Your task to perform on an android device: change your default location settings in chrome Image 0: 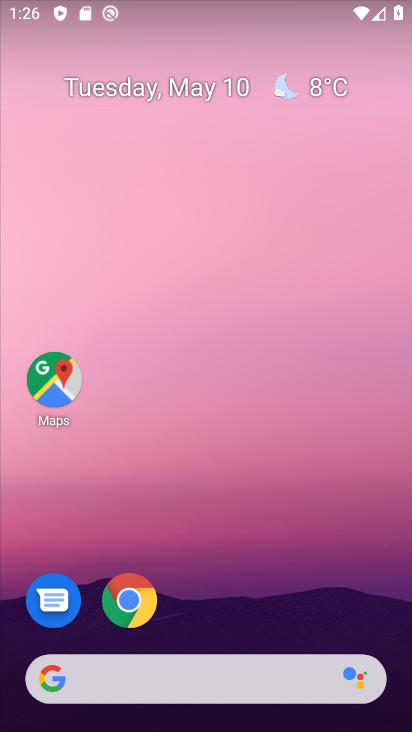
Step 0: click (131, 596)
Your task to perform on an android device: change your default location settings in chrome Image 1: 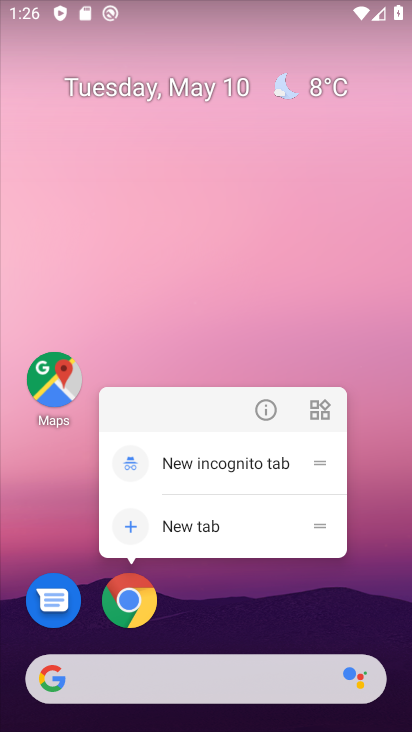
Step 1: click (165, 619)
Your task to perform on an android device: change your default location settings in chrome Image 2: 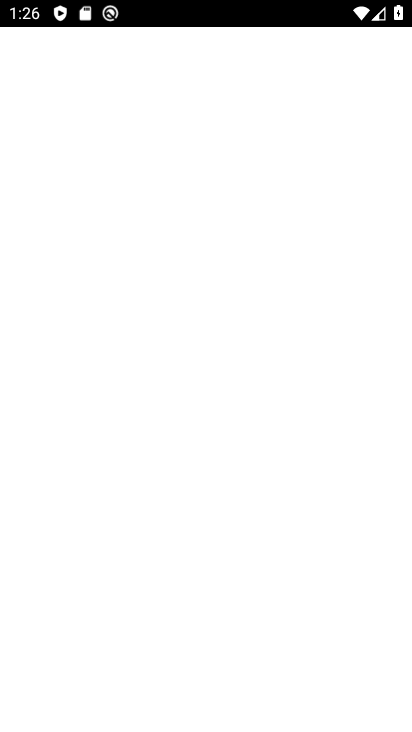
Step 2: click (131, 604)
Your task to perform on an android device: change your default location settings in chrome Image 3: 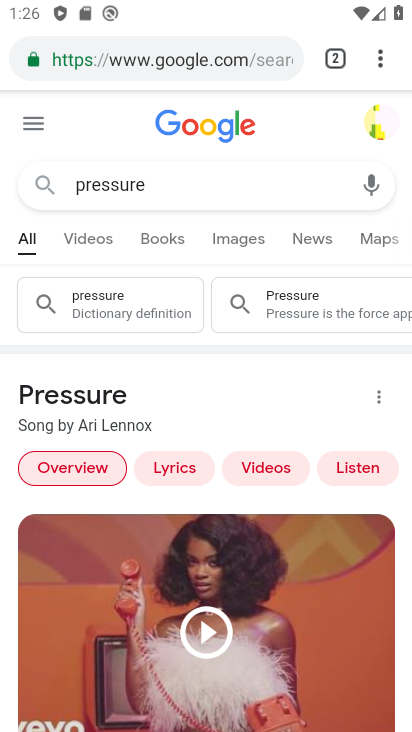
Step 3: click (383, 52)
Your task to perform on an android device: change your default location settings in chrome Image 4: 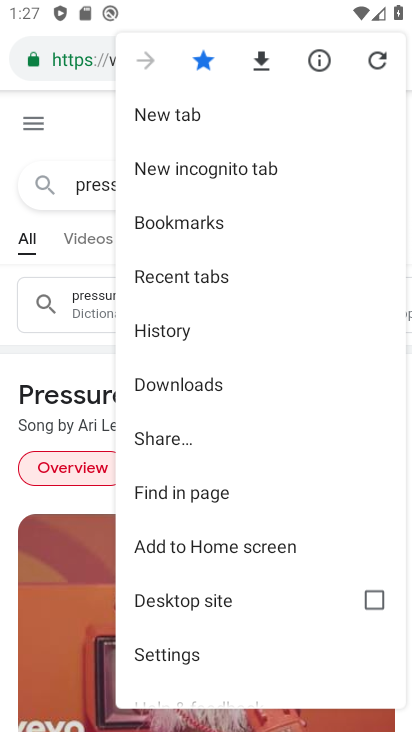
Step 4: click (202, 653)
Your task to perform on an android device: change your default location settings in chrome Image 5: 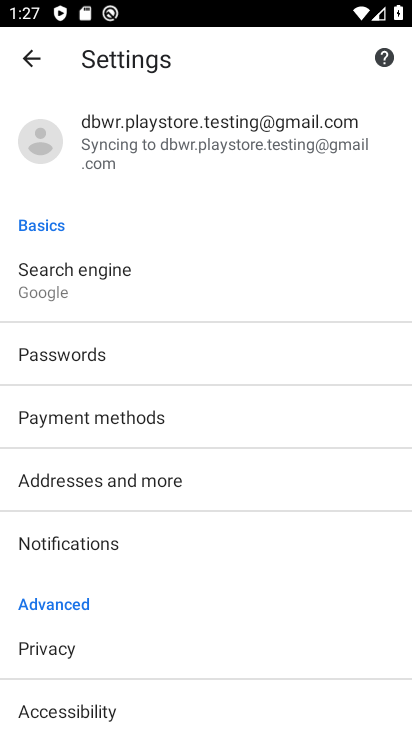
Step 5: drag from (186, 659) to (208, 421)
Your task to perform on an android device: change your default location settings in chrome Image 6: 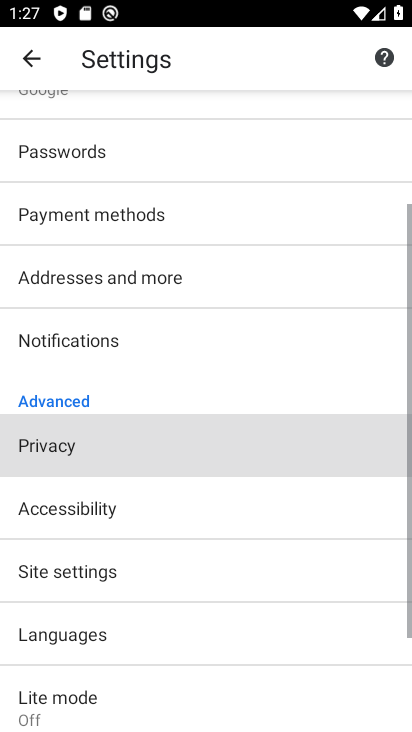
Step 6: drag from (239, 224) to (254, 129)
Your task to perform on an android device: change your default location settings in chrome Image 7: 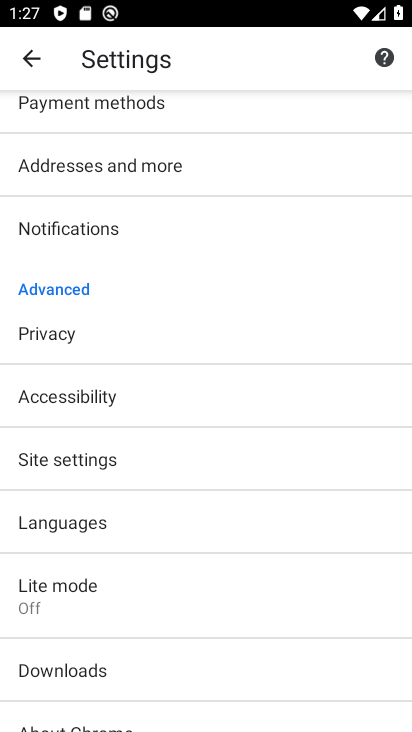
Step 7: click (136, 456)
Your task to perform on an android device: change your default location settings in chrome Image 8: 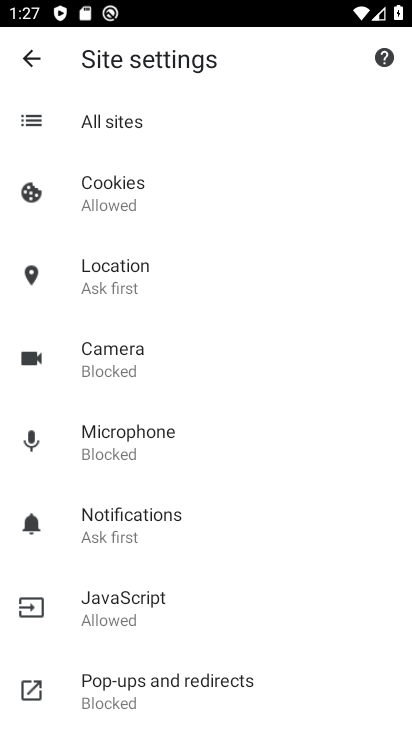
Step 8: click (153, 280)
Your task to perform on an android device: change your default location settings in chrome Image 9: 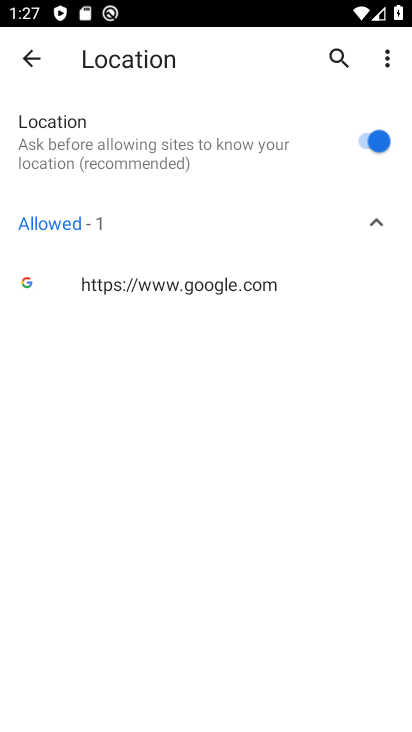
Step 9: click (362, 144)
Your task to perform on an android device: change your default location settings in chrome Image 10: 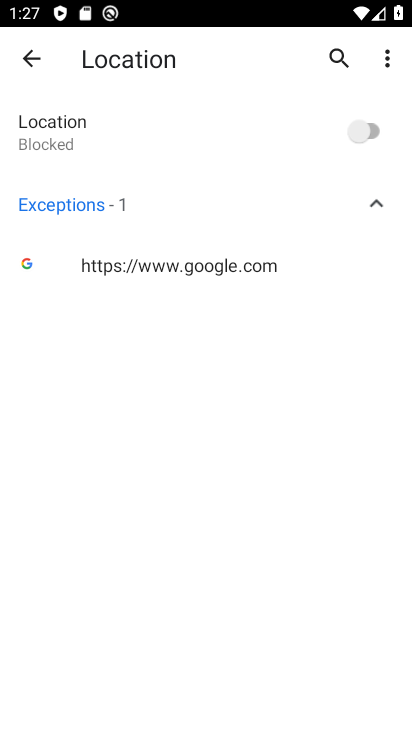
Step 10: task complete